Your task to perform on an android device: Show me popular videos on Youtube Image 0: 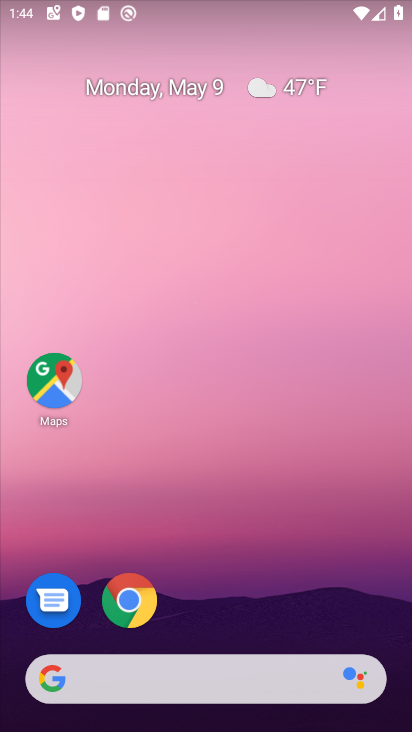
Step 0: drag from (239, 599) to (266, 40)
Your task to perform on an android device: Show me popular videos on Youtube Image 1: 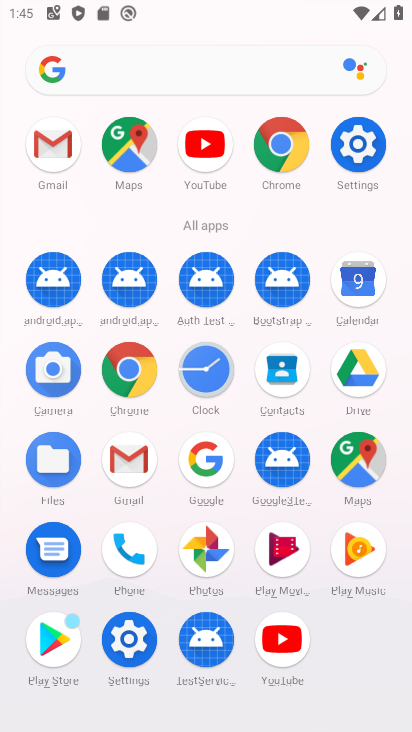
Step 1: click (271, 608)
Your task to perform on an android device: Show me popular videos on Youtube Image 2: 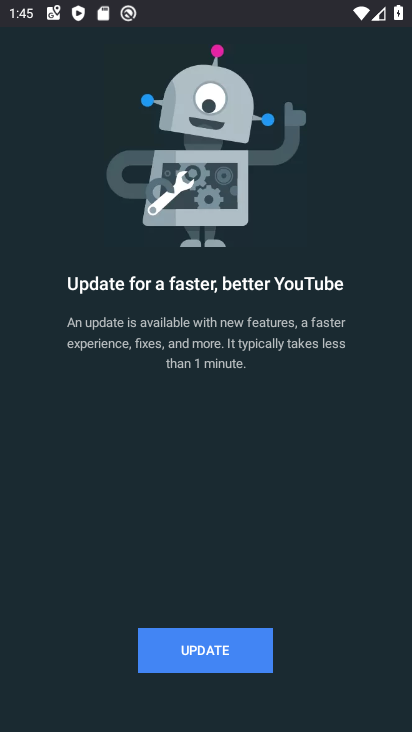
Step 2: click (223, 650)
Your task to perform on an android device: Show me popular videos on Youtube Image 3: 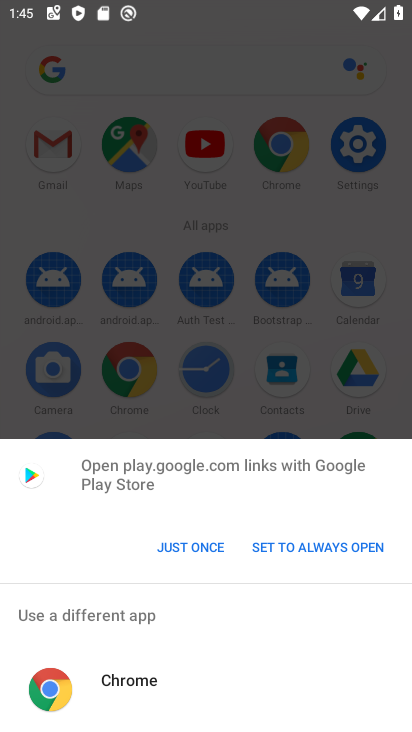
Step 3: click (163, 683)
Your task to perform on an android device: Show me popular videos on Youtube Image 4: 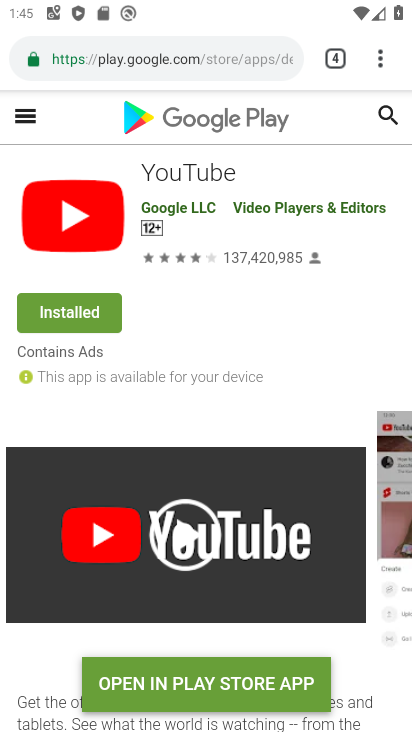
Step 4: click (226, 668)
Your task to perform on an android device: Show me popular videos on Youtube Image 5: 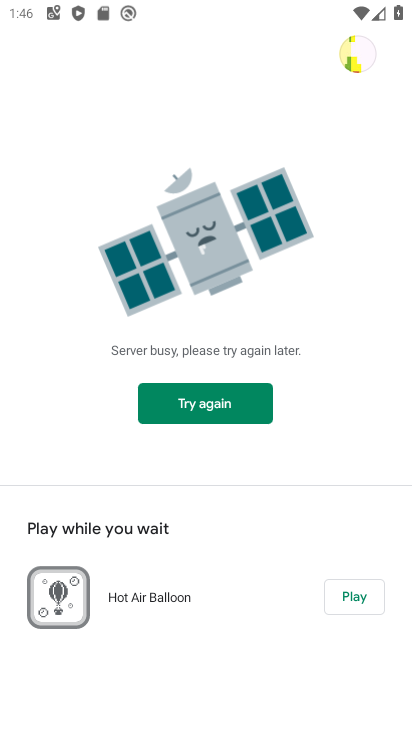
Step 5: task complete